Your task to perform on an android device: choose inbox layout in the gmail app Image 0: 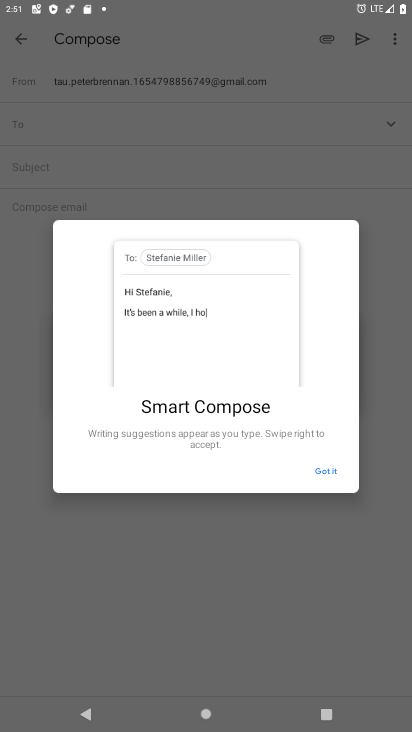
Step 0: press home button
Your task to perform on an android device: choose inbox layout in the gmail app Image 1: 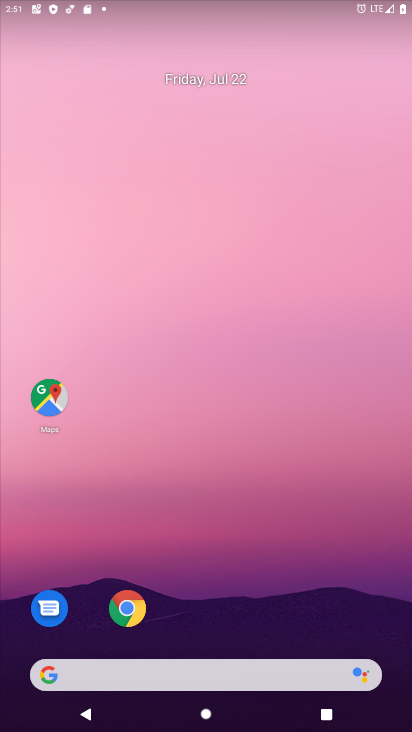
Step 1: drag from (410, 542) to (406, 77)
Your task to perform on an android device: choose inbox layout in the gmail app Image 2: 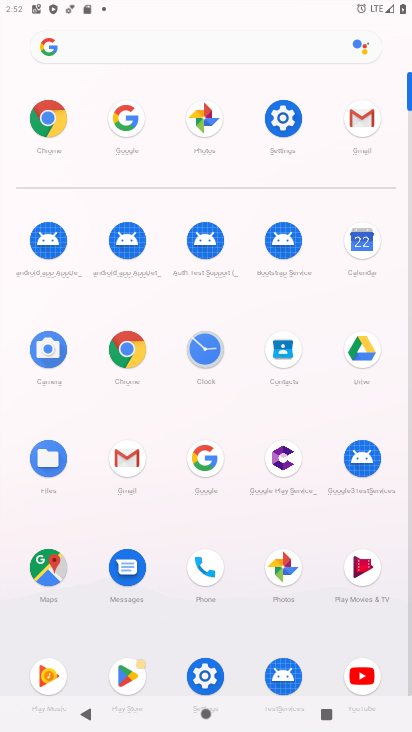
Step 2: click (130, 451)
Your task to perform on an android device: choose inbox layout in the gmail app Image 3: 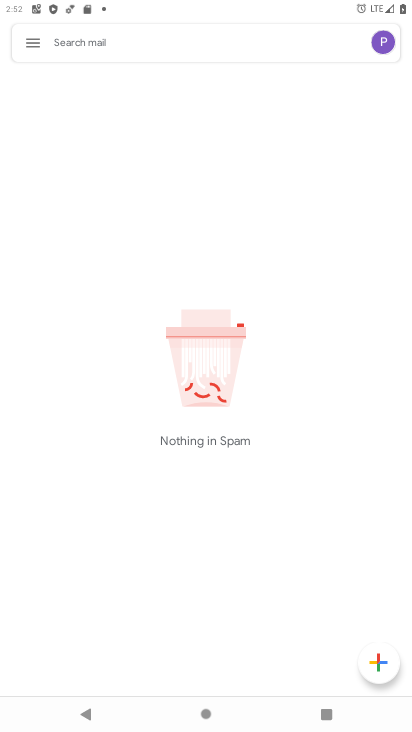
Step 3: click (24, 41)
Your task to perform on an android device: choose inbox layout in the gmail app Image 4: 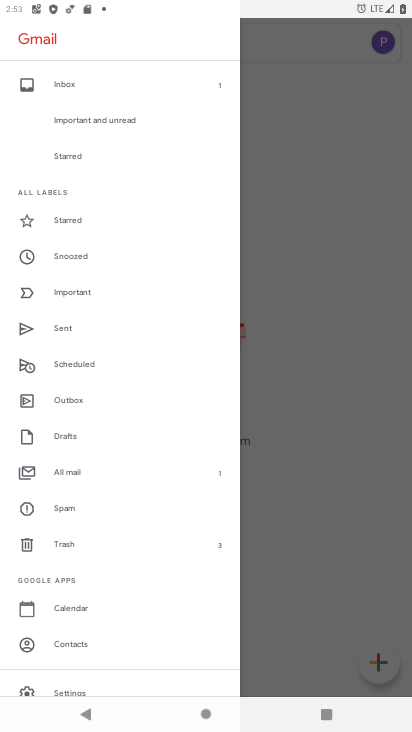
Step 4: press home button
Your task to perform on an android device: choose inbox layout in the gmail app Image 5: 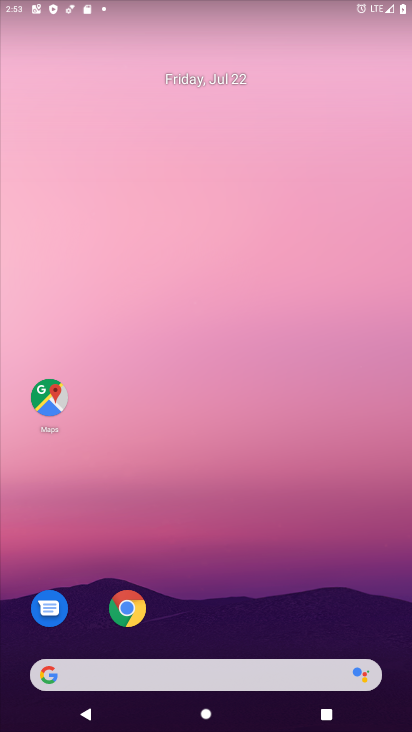
Step 5: drag from (402, 615) to (359, 170)
Your task to perform on an android device: choose inbox layout in the gmail app Image 6: 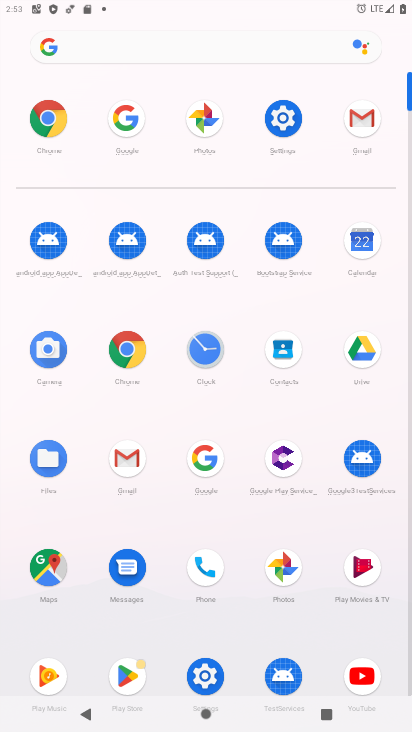
Step 6: click (364, 122)
Your task to perform on an android device: choose inbox layout in the gmail app Image 7: 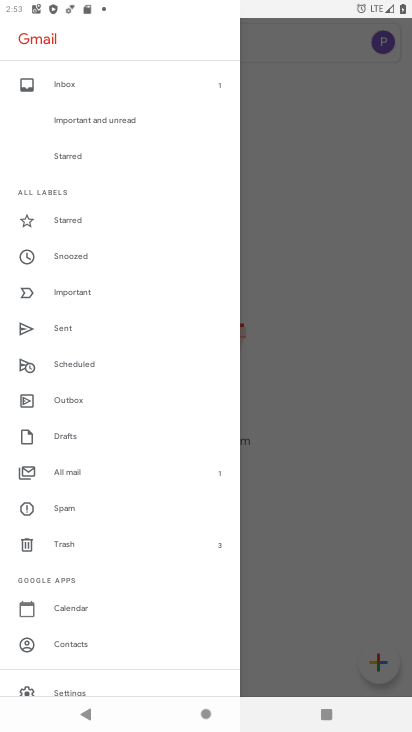
Step 7: click (54, 691)
Your task to perform on an android device: choose inbox layout in the gmail app Image 8: 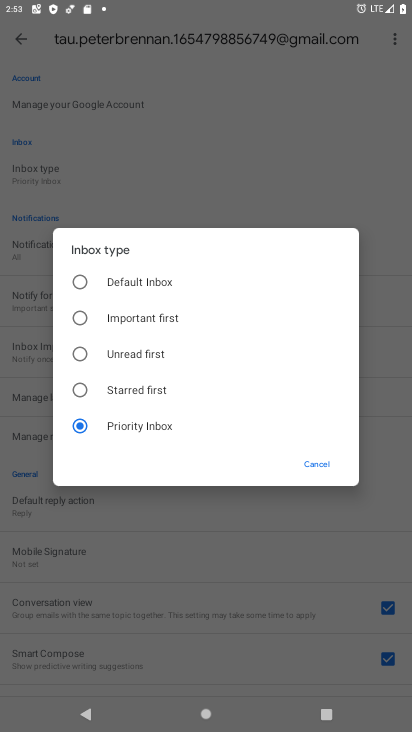
Step 8: click (122, 425)
Your task to perform on an android device: choose inbox layout in the gmail app Image 9: 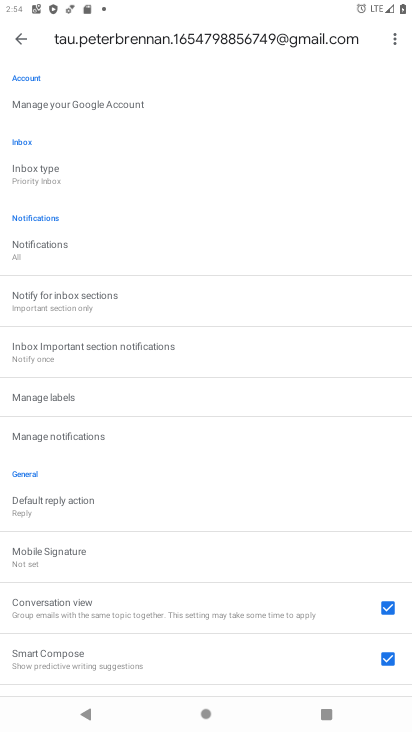
Step 9: click (34, 174)
Your task to perform on an android device: choose inbox layout in the gmail app Image 10: 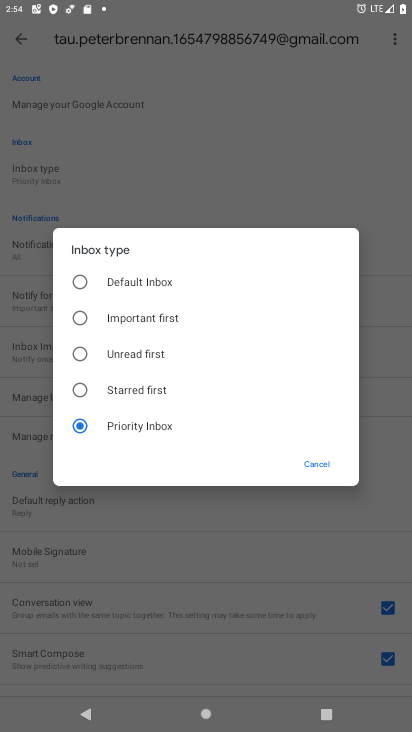
Step 10: click (78, 387)
Your task to perform on an android device: choose inbox layout in the gmail app Image 11: 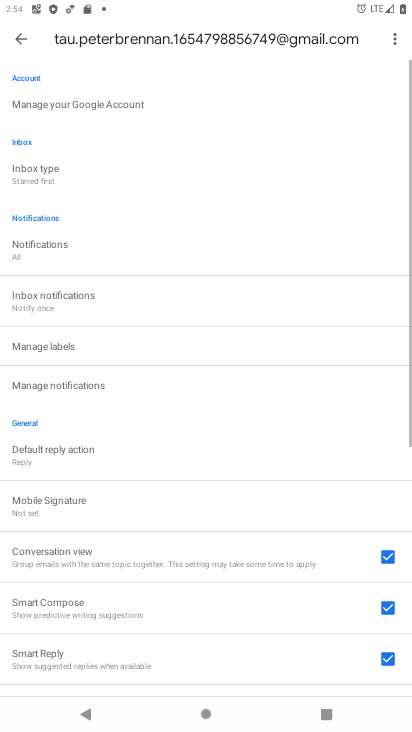
Step 11: task complete